Your task to perform on an android device: Go to Wikipedia Image 0: 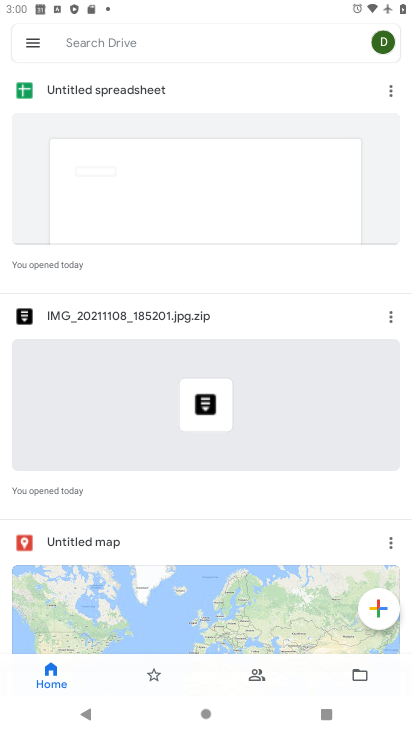
Step 0: press home button
Your task to perform on an android device: Go to Wikipedia Image 1: 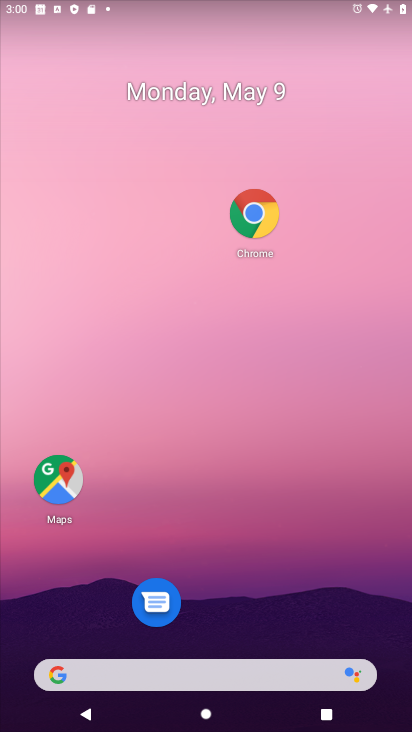
Step 1: click (246, 217)
Your task to perform on an android device: Go to Wikipedia Image 2: 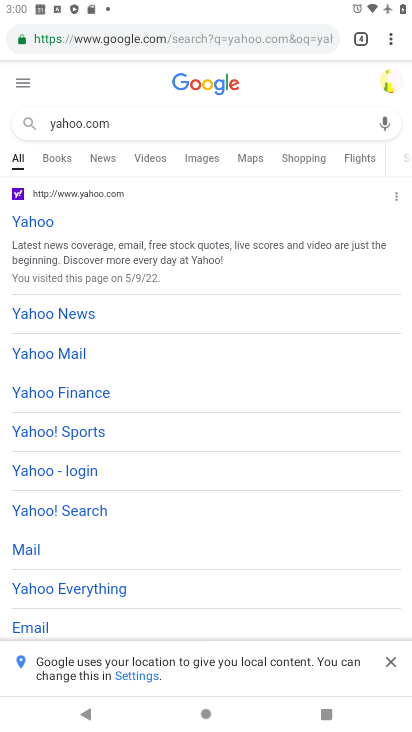
Step 2: click (187, 117)
Your task to perform on an android device: Go to Wikipedia Image 3: 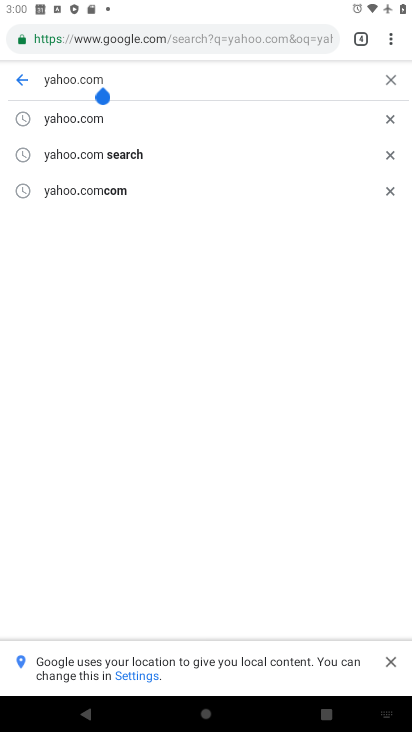
Step 3: type "wikipedia"
Your task to perform on an android device: Go to Wikipedia Image 4: 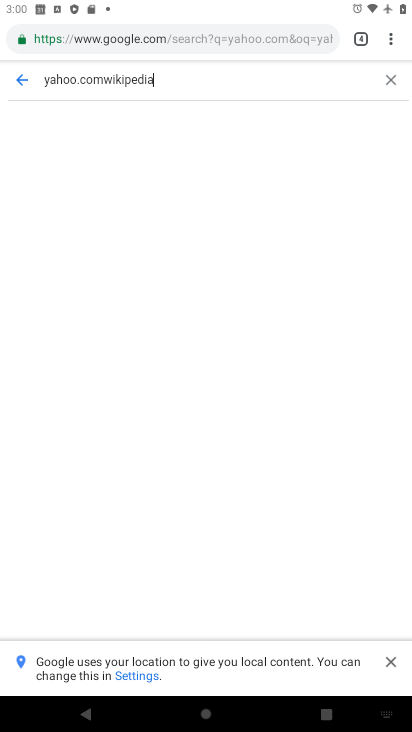
Step 4: click (385, 83)
Your task to perform on an android device: Go to Wikipedia Image 5: 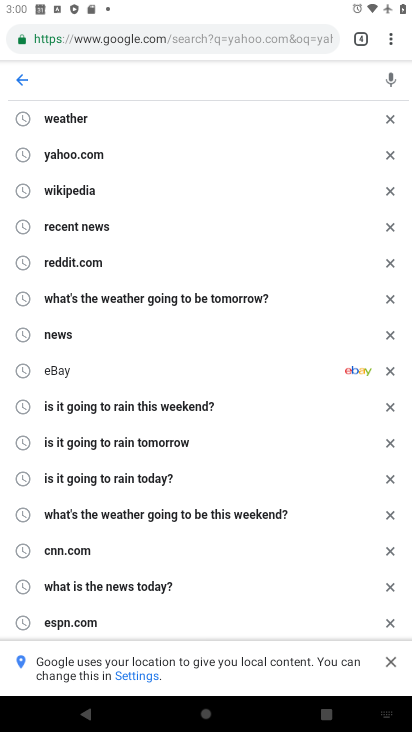
Step 5: click (123, 196)
Your task to perform on an android device: Go to Wikipedia Image 6: 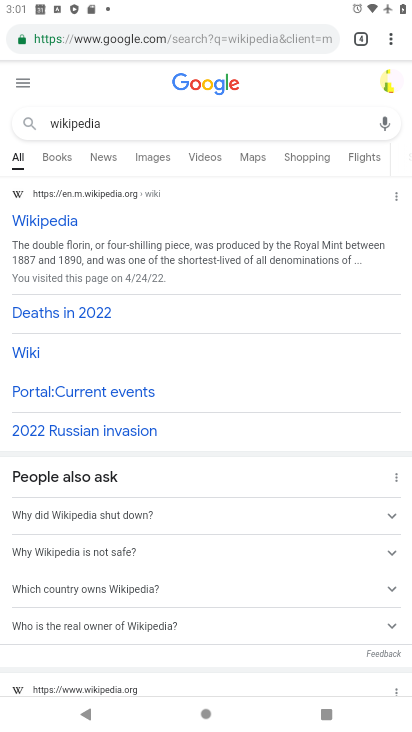
Step 6: task complete